Your task to perform on an android device: turn on notifications settings in the gmail app Image 0: 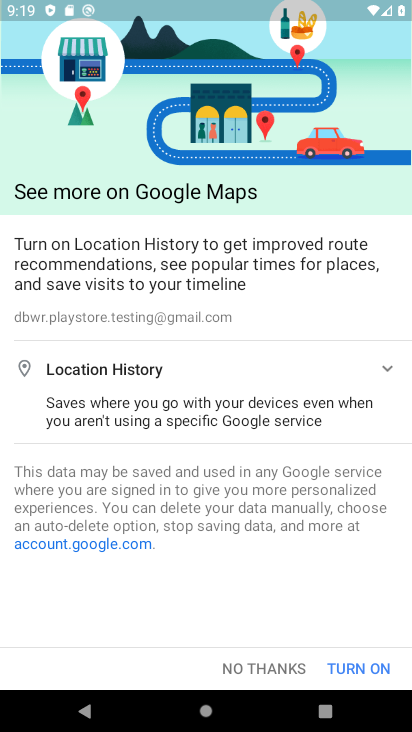
Step 0: press home button
Your task to perform on an android device: turn on notifications settings in the gmail app Image 1: 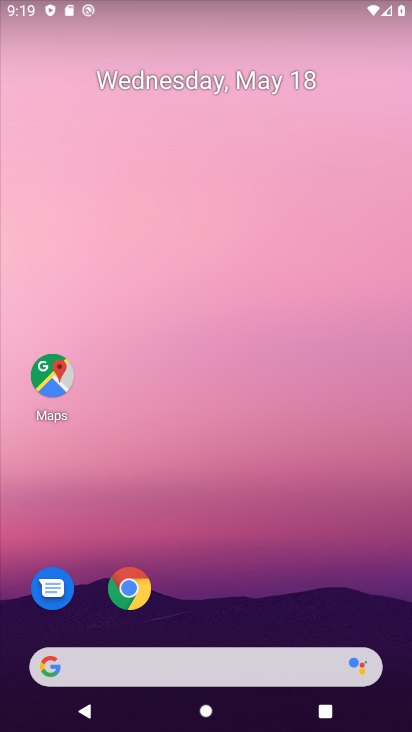
Step 1: drag from (255, 698) to (322, 205)
Your task to perform on an android device: turn on notifications settings in the gmail app Image 2: 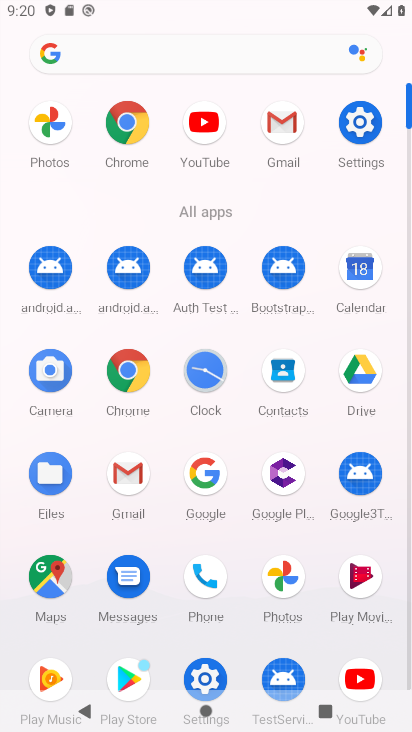
Step 2: click (131, 469)
Your task to perform on an android device: turn on notifications settings in the gmail app Image 3: 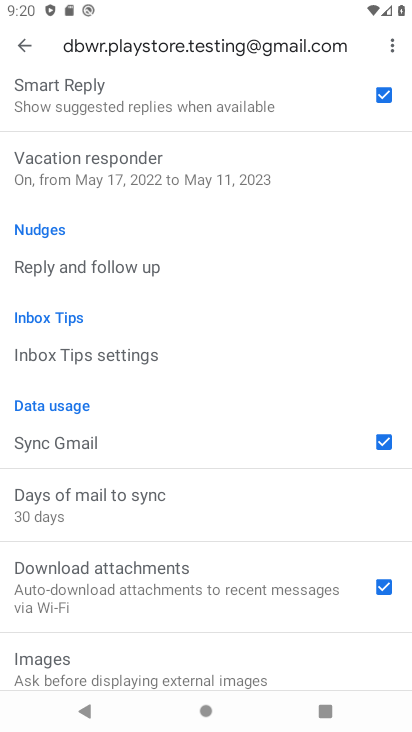
Step 3: drag from (96, 540) to (152, 707)
Your task to perform on an android device: turn on notifications settings in the gmail app Image 4: 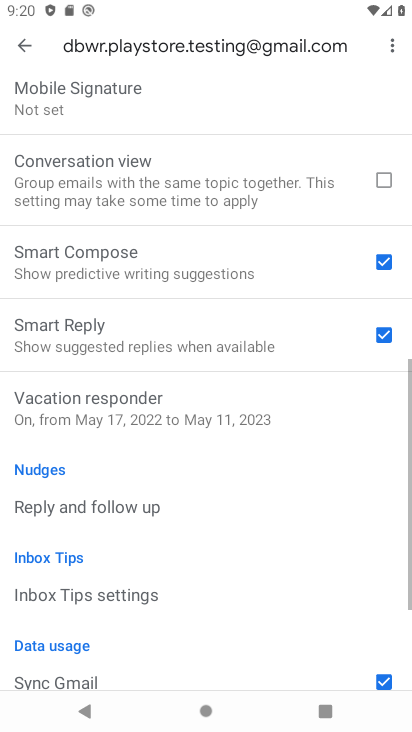
Step 4: drag from (129, 177) to (85, 572)
Your task to perform on an android device: turn on notifications settings in the gmail app Image 5: 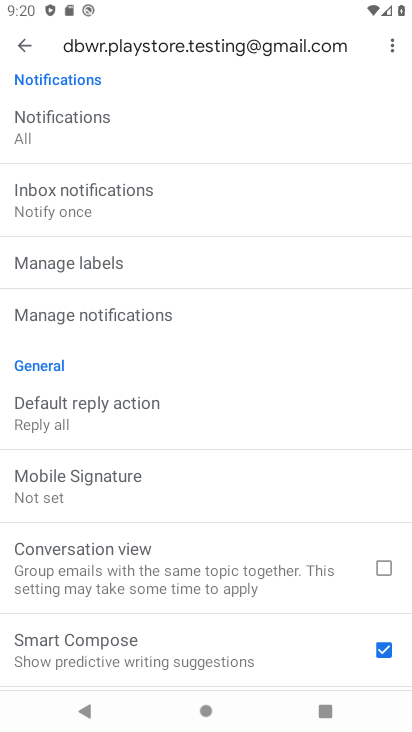
Step 5: drag from (98, 234) to (71, 436)
Your task to perform on an android device: turn on notifications settings in the gmail app Image 6: 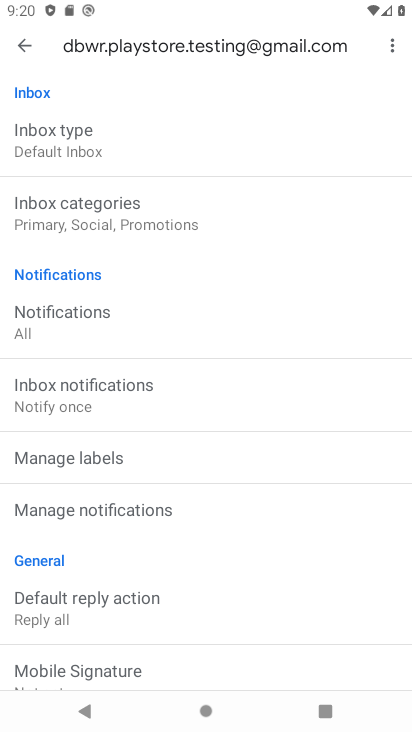
Step 6: click (71, 313)
Your task to perform on an android device: turn on notifications settings in the gmail app Image 7: 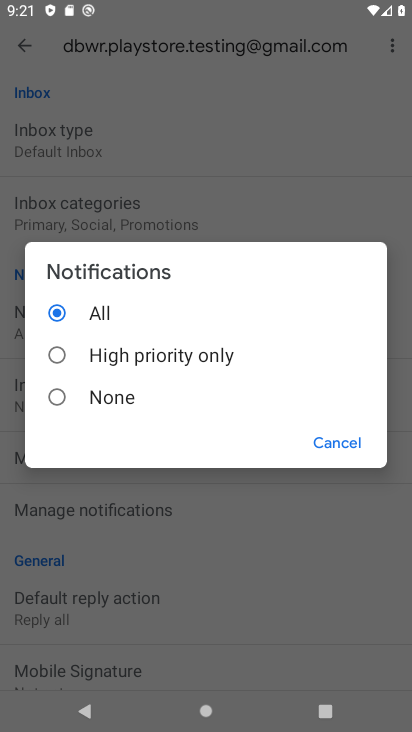
Step 7: task complete